Your task to perform on an android device: toggle show notifications on the lock screen Image 0: 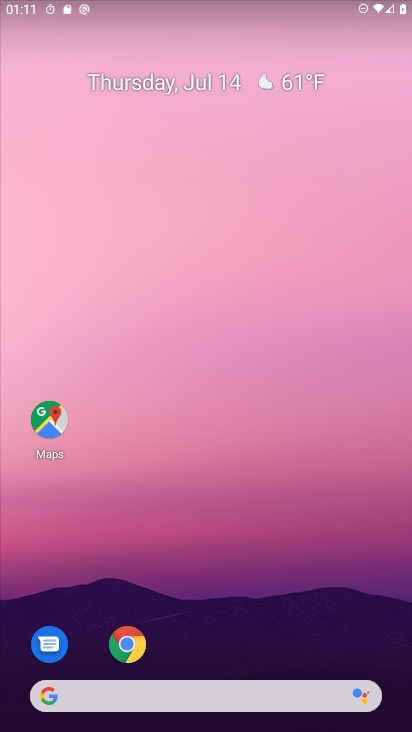
Step 0: drag from (291, 603) to (295, 69)
Your task to perform on an android device: toggle show notifications on the lock screen Image 1: 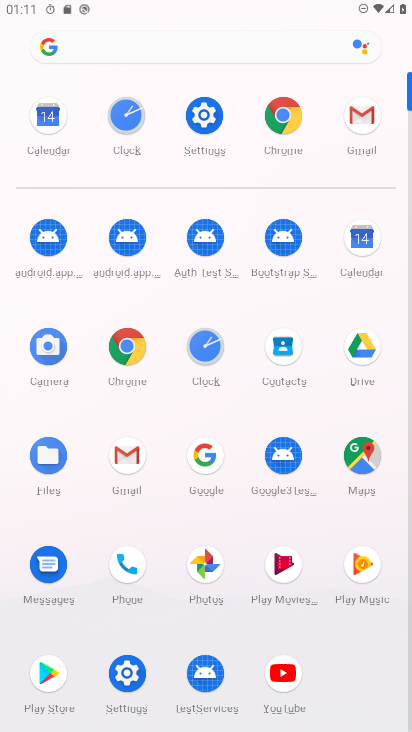
Step 1: click (207, 111)
Your task to perform on an android device: toggle show notifications on the lock screen Image 2: 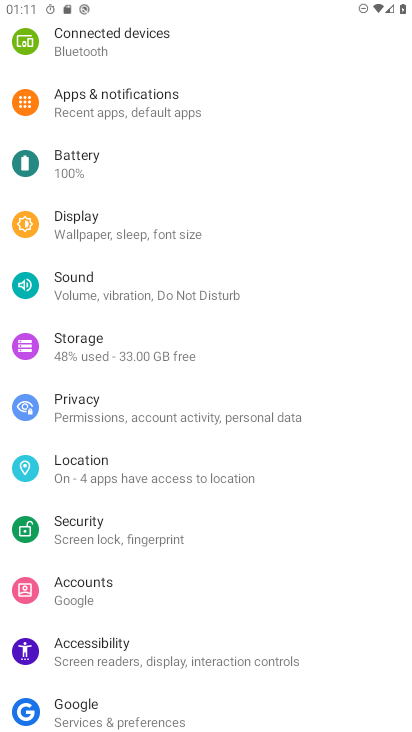
Step 2: click (168, 111)
Your task to perform on an android device: toggle show notifications on the lock screen Image 3: 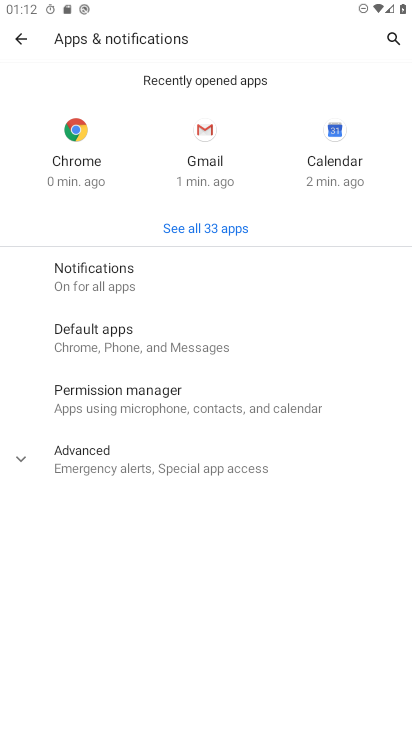
Step 3: click (136, 278)
Your task to perform on an android device: toggle show notifications on the lock screen Image 4: 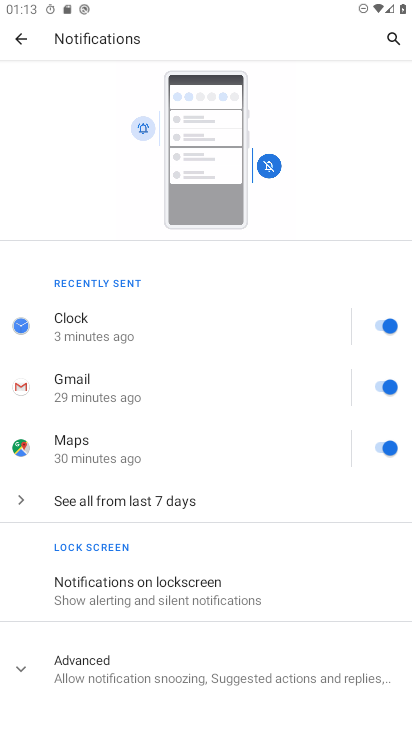
Step 4: click (183, 667)
Your task to perform on an android device: toggle show notifications on the lock screen Image 5: 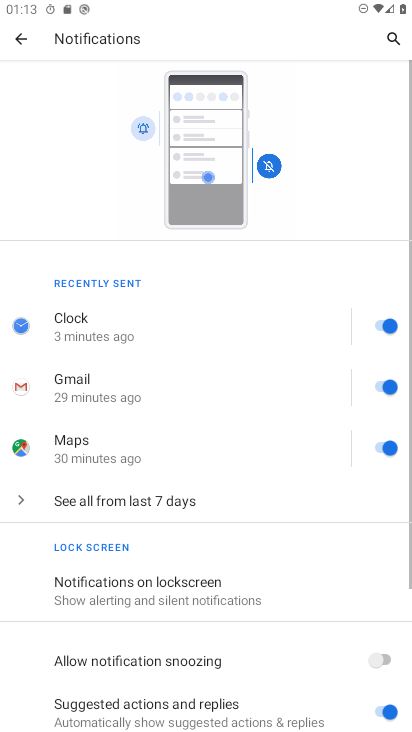
Step 5: click (200, 592)
Your task to perform on an android device: toggle show notifications on the lock screen Image 6: 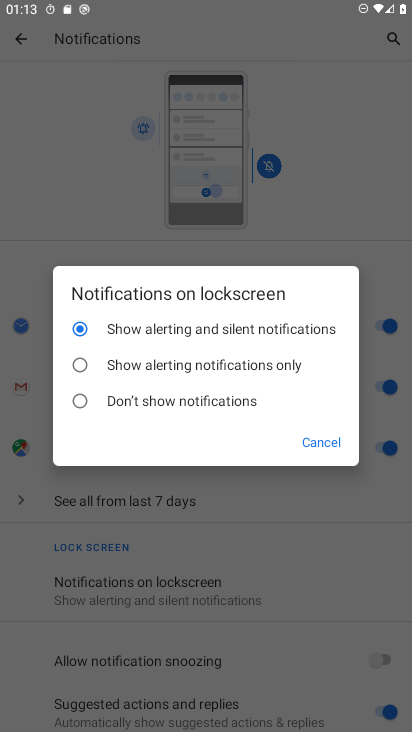
Step 6: click (253, 361)
Your task to perform on an android device: toggle show notifications on the lock screen Image 7: 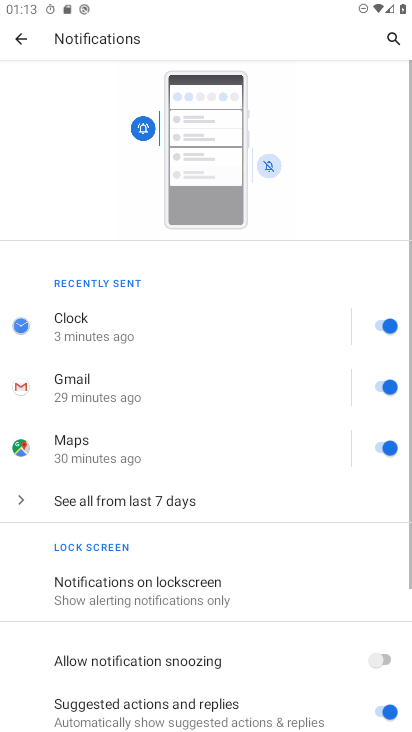
Step 7: task complete